Your task to perform on an android device: Go to location settings Image 0: 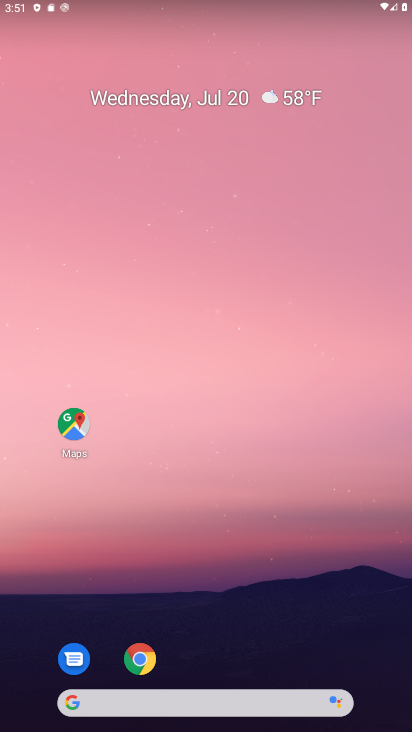
Step 0: press back button
Your task to perform on an android device: Go to location settings Image 1: 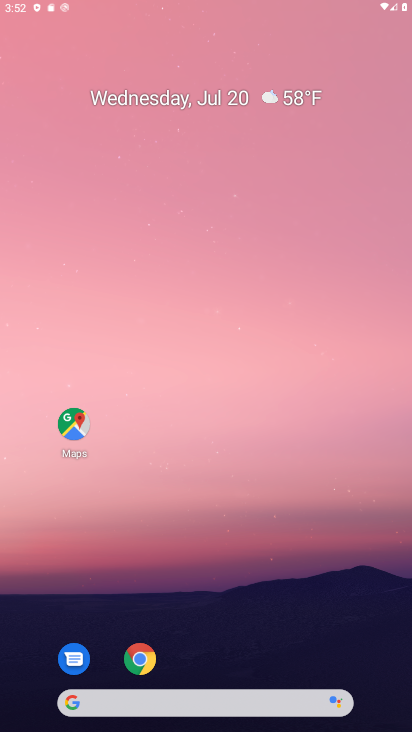
Step 1: drag from (222, 648) to (218, 163)
Your task to perform on an android device: Go to location settings Image 2: 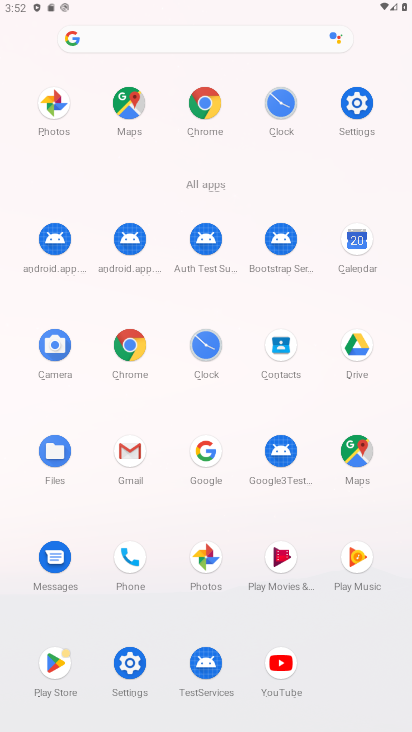
Step 2: click (340, 106)
Your task to perform on an android device: Go to location settings Image 3: 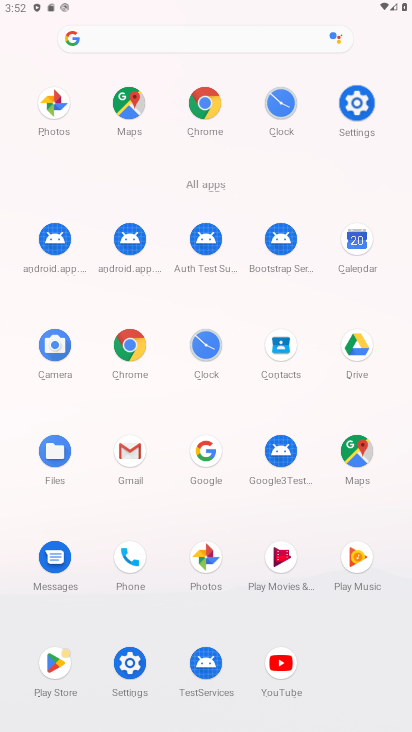
Step 3: click (350, 109)
Your task to perform on an android device: Go to location settings Image 4: 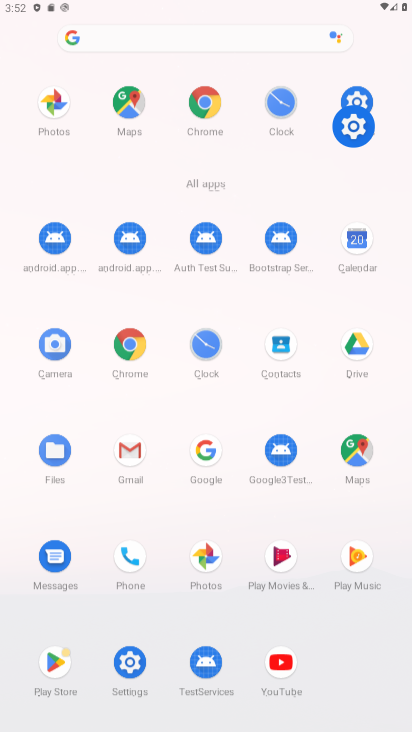
Step 4: click (352, 111)
Your task to perform on an android device: Go to location settings Image 5: 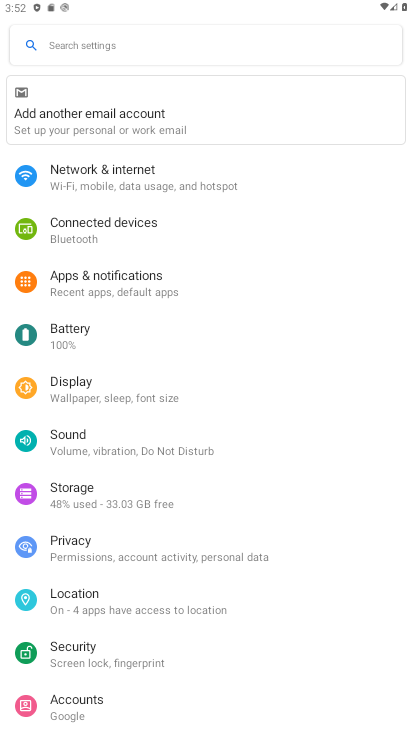
Step 5: click (91, 598)
Your task to perform on an android device: Go to location settings Image 6: 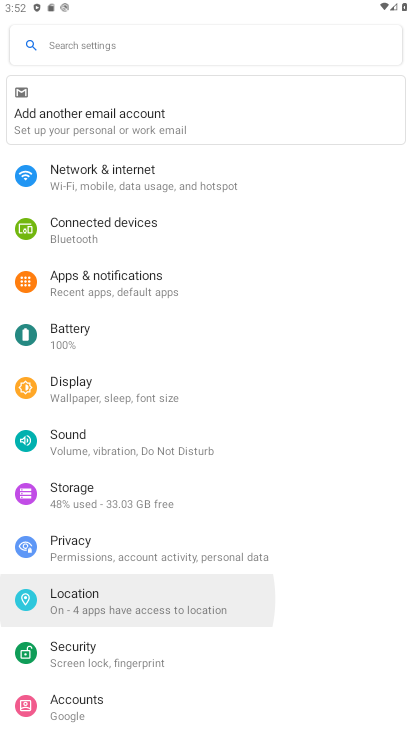
Step 6: click (91, 598)
Your task to perform on an android device: Go to location settings Image 7: 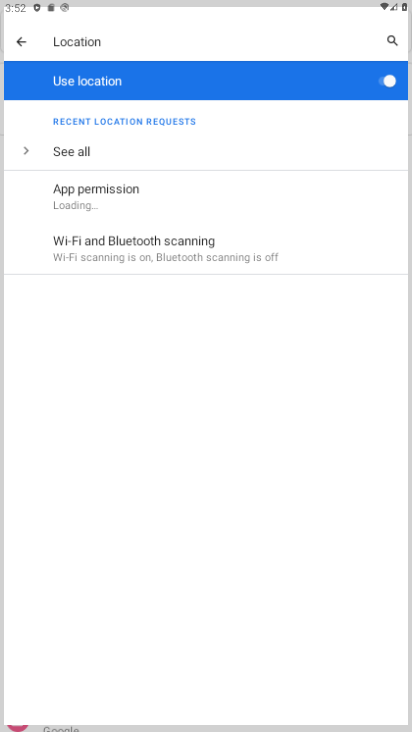
Step 7: click (91, 598)
Your task to perform on an android device: Go to location settings Image 8: 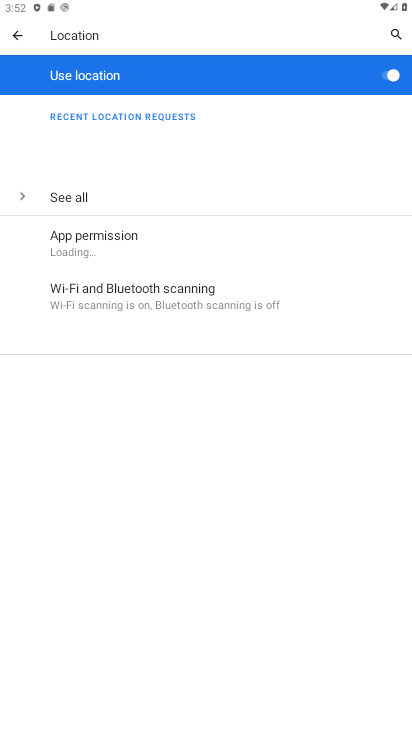
Step 8: click (91, 598)
Your task to perform on an android device: Go to location settings Image 9: 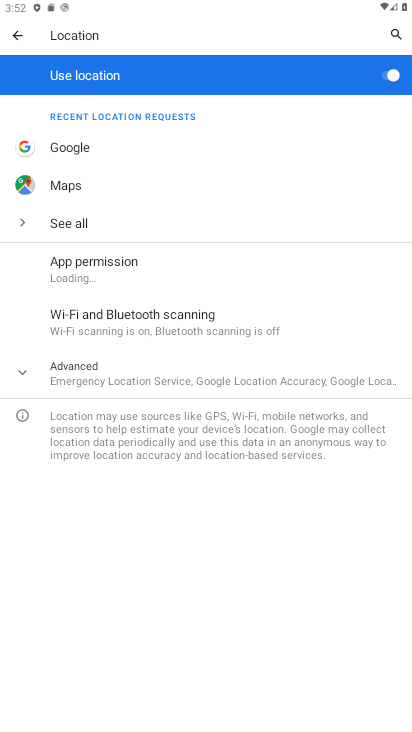
Step 9: task complete